Your task to perform on an android device: Open the calendar and show me this week's events? Image 0: 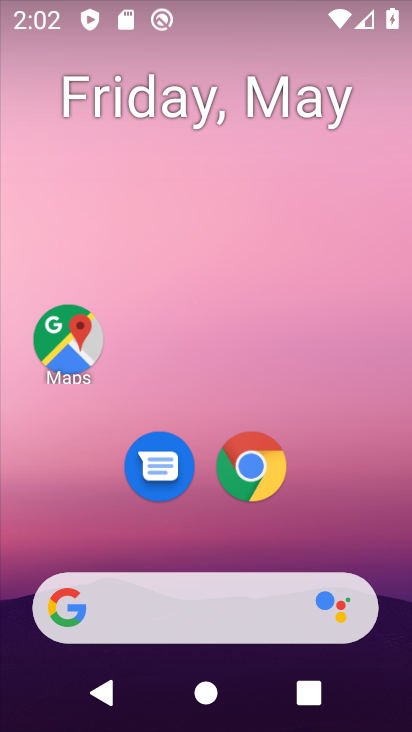
Step 0: drag from (114, 571) to (243, 90)
Your task to perform on an android device: Open the calendar and show me this week's events? Image 1: 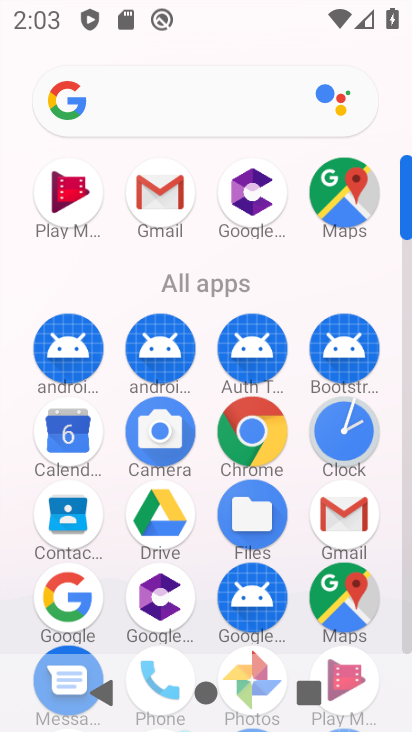
Step 1: click (61, 442)
Your task to perform on an android device: Open the calendar and show me this week's events? Image 2: 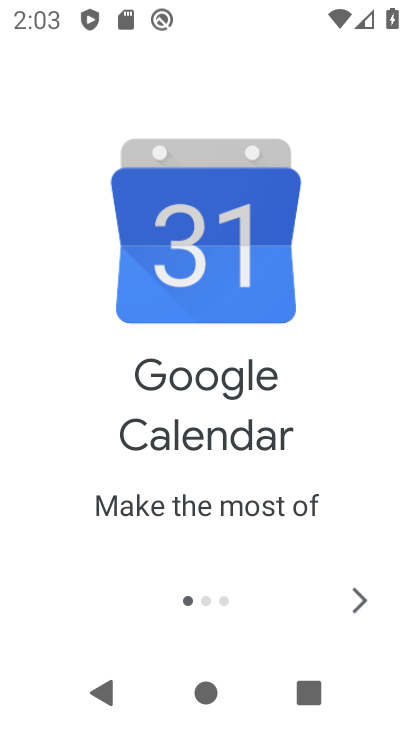
Step 2: click (368, 612)
Your task to perform on an android device: Open the calendar and show me this week's events? Image 3: 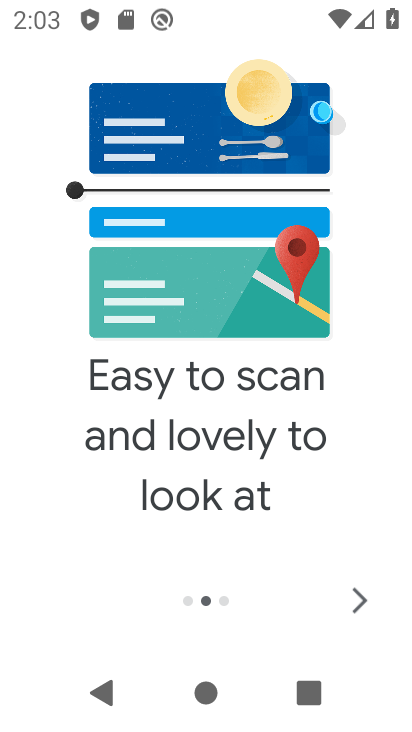
Step 3: click (356, 614)
Your task to perform on an android device: Open the calendar and show me this week's events? Image 4: 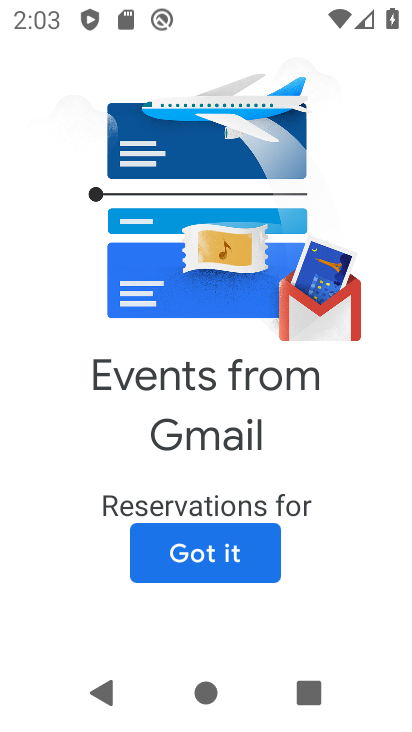
Step 4: click (247, 569)
Your task to perform on an android device: Open the calendar and show me this week's events? Image 5: 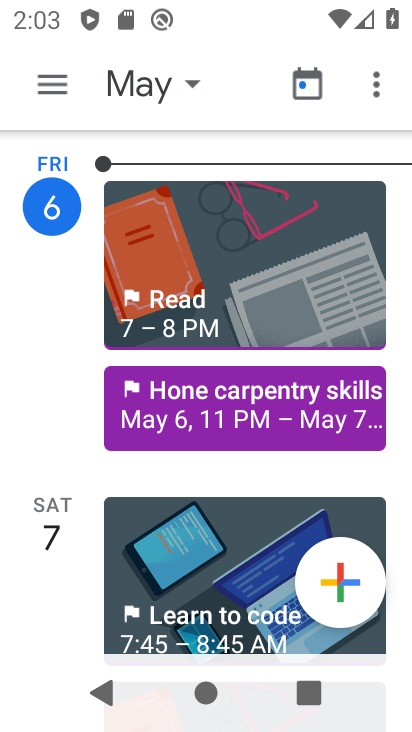
Step 5: task complete